Your task to perform on an android device: turn pop-ups on in chrome Image 0: 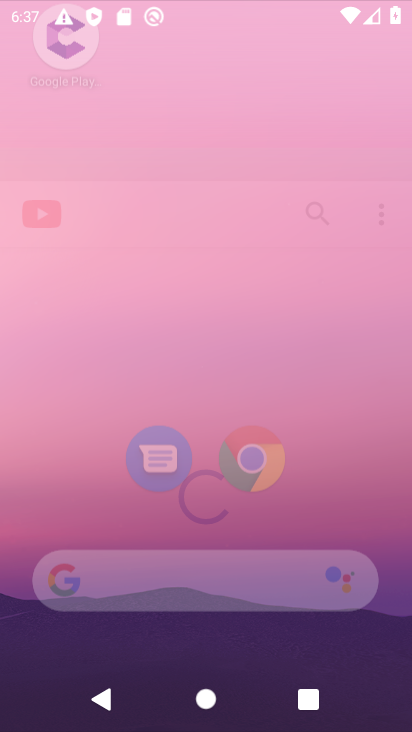
Step 0: drag from (312, 198) to (262, 51)
Your task to perform on an android device: turn pop-ups on in chrome Image 1: 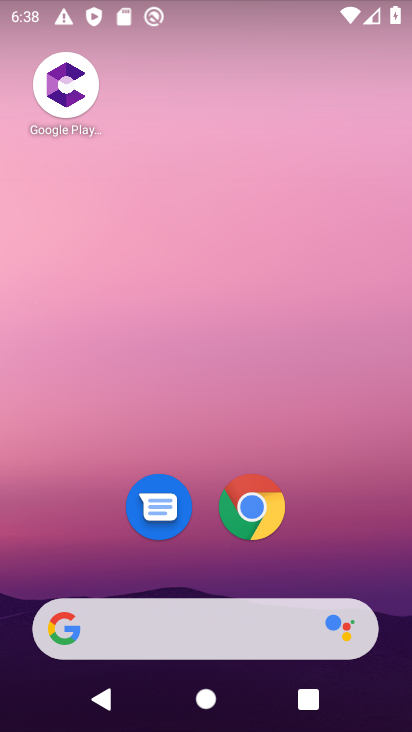
Step 1: drag from (383, 587) to (207, 30)
Your task to perform on an android device: turn pop-ups on in chrome Image 2: 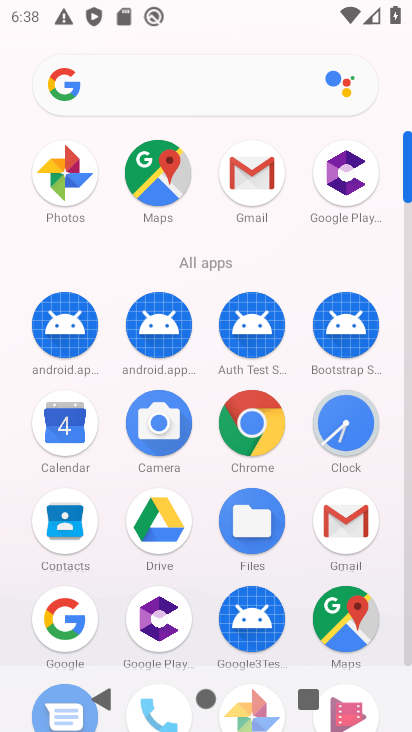
Step 2: click (254, 420)
Your task to perform on an android device: turn pop-ups on in chrome Image 3: 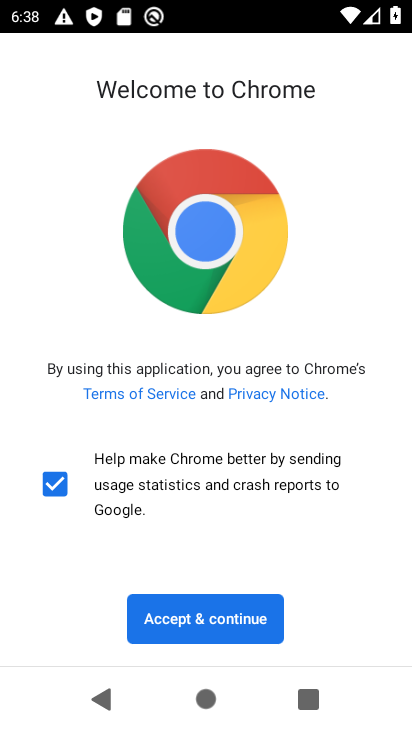
Step 3: click (195, 624)
Your task to perform on an android device: turn pop-ups on in chrome Image 4: 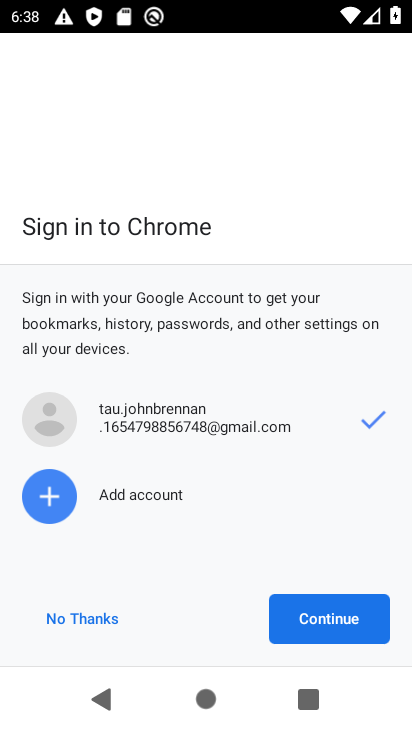
Step 4: click (314, 623)
Your task to perform on an android device: turn pop-ups on in chrome Image 5: 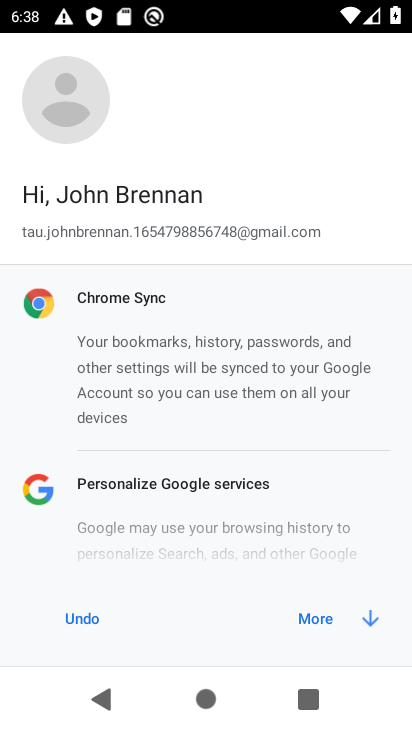
Step 5: click (315, 622)
Your task to perform on an android device: turn pop-ups on in chrome Image 6: 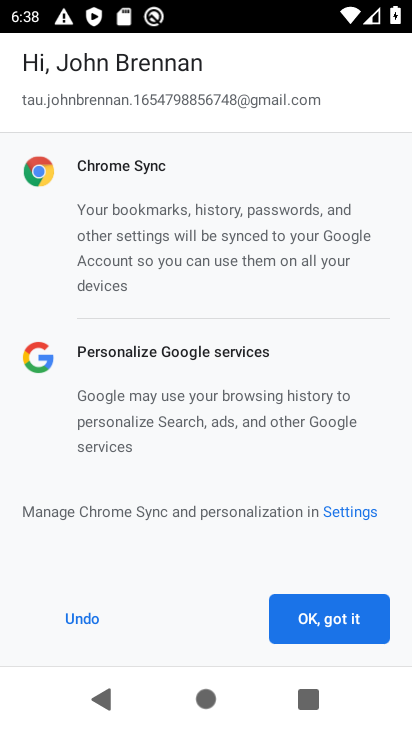
Step 6: click (315, 622)
Your task to perform on an android device: turn pop-ups on in chrome Image 7: 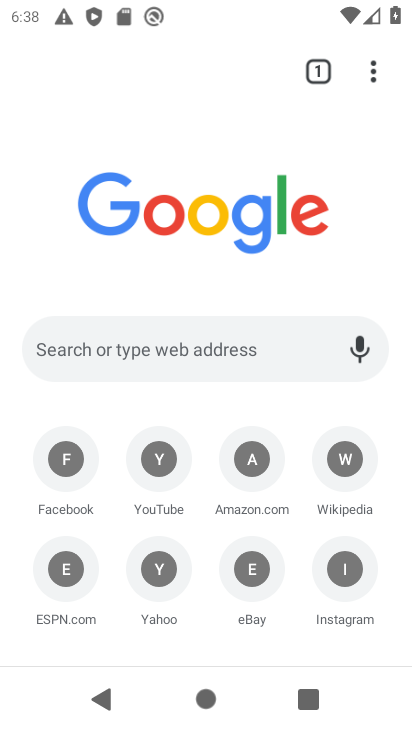
Step 7: click (378, 63)
Your task to perform on an android device: turn pop-ups on in chrome Image 8: 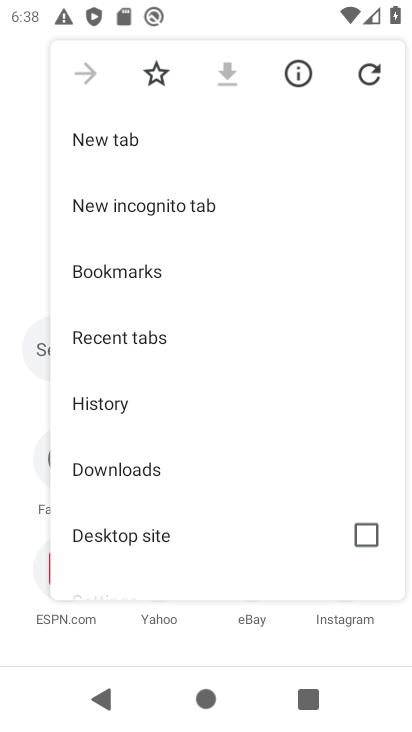
Step 8: drag from (180, 493) to (194, 87)
Your task to perform on an android device: turn pop-ups on in chrome Image 9: 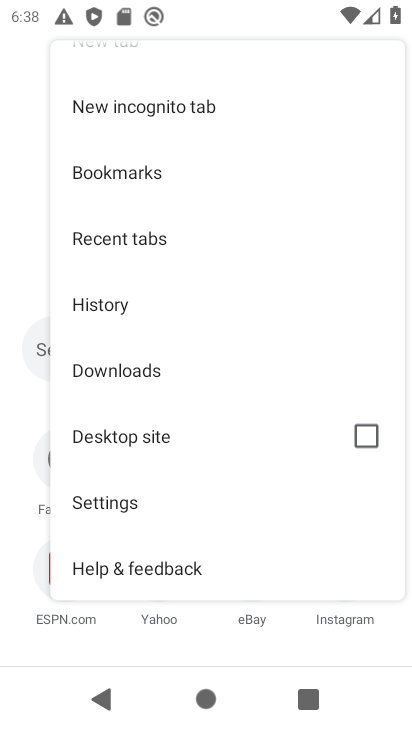
Step 9: click (146, 500)
Your task to perform on an android device: turn pop-ups on in chrome Image 10: 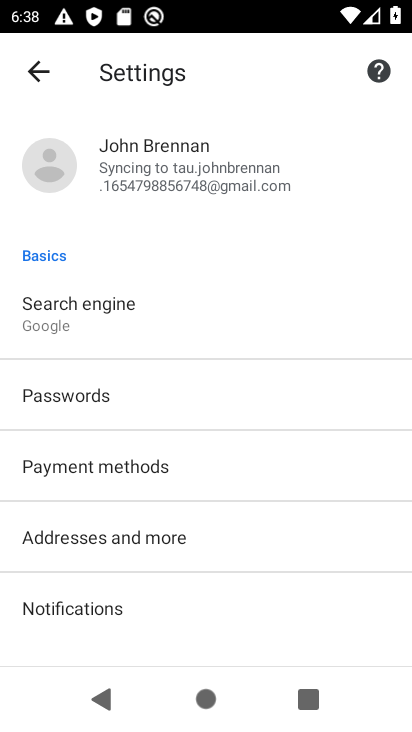
Step 10: drag from (115, 605) to (111, 73)
Your task to perform on an android device: turn pop-ups on in chrome Image 11: 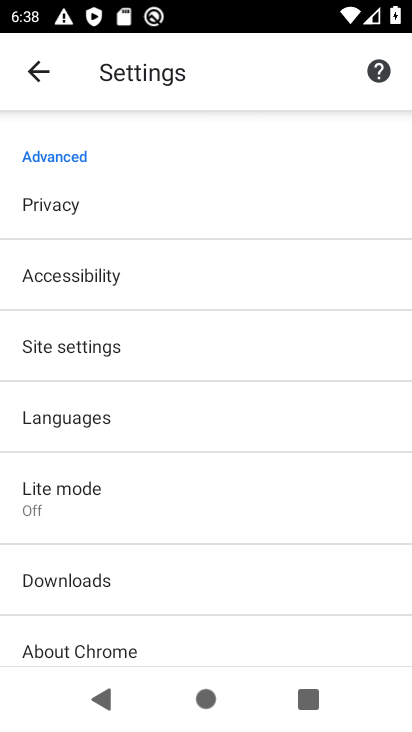
Step 11: click (113, 369)
Your task to perform on an android device: turn pop-ups on in chrome Image 12: 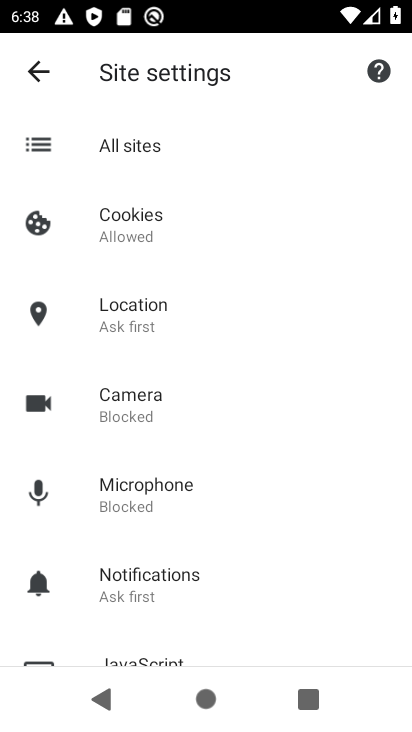
Step 12: drag from (176, 595) to (148, 69)
Your task to perform on an android device: turn pop-ups on in chrome Image 13: 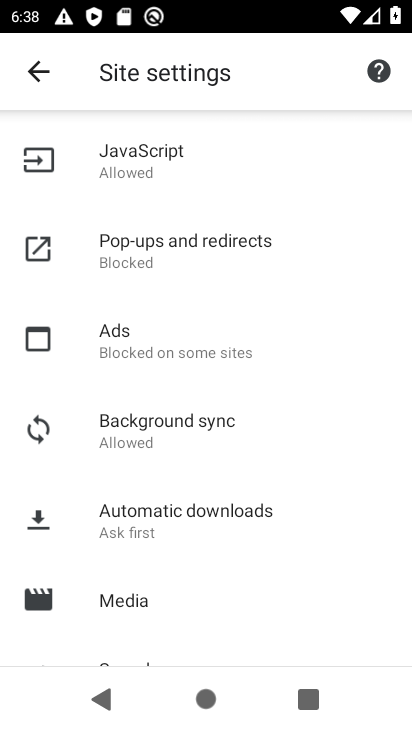
Step 13: click (184, 248)
Your task to perform on an android device: turn pop-ups on in chrome Image 14: 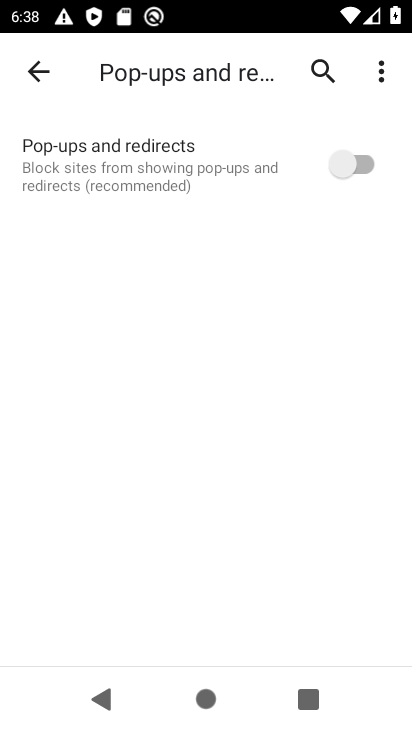
Step 14: click (341, 173)
Your task to perform on an android device: turn pop-ups on in chrome Image 15: 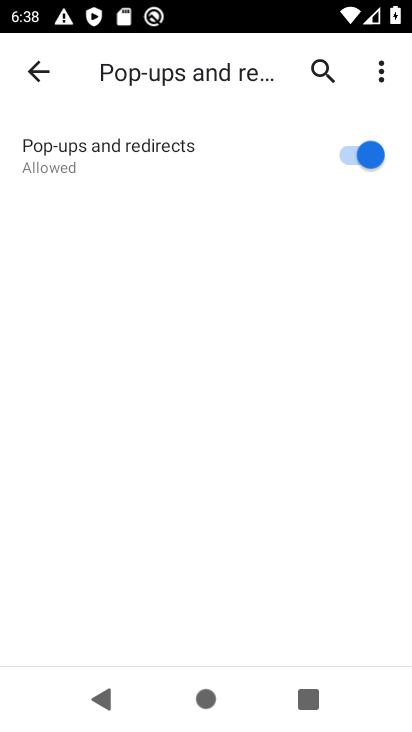
Step 15: task complete